Your task to perform on an android device: find photos in the google photos app Image 0: 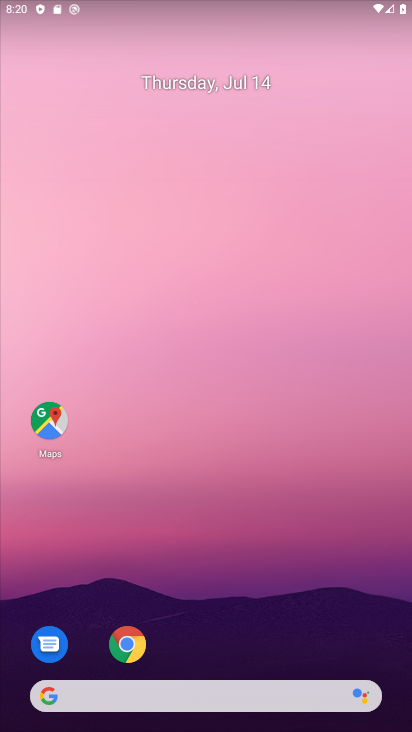
Step 0: drag from (277, 660) to (203, 193)
Your task to perform on an android device: find photos in the google photos app Image 1: 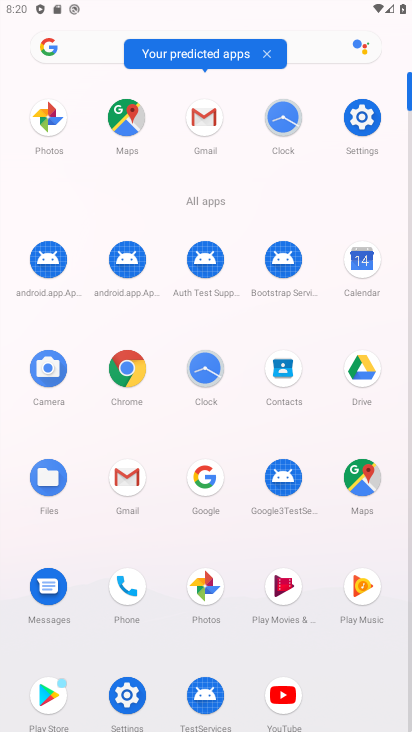
Step 1: click (51, 116)
Your task to perform on an android device: find photos in the google photos app Image 2: 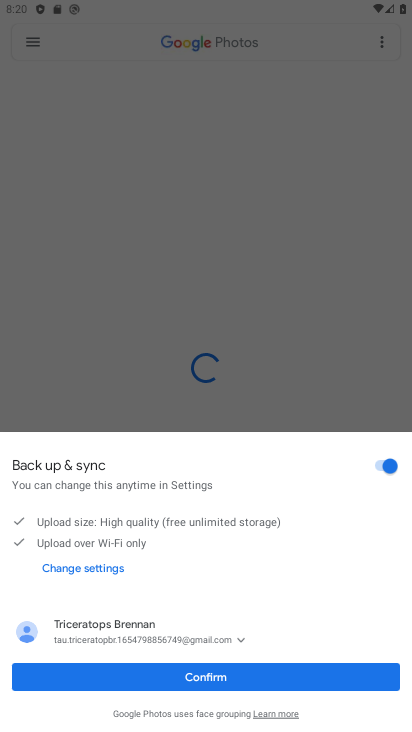
Step 2: click (249, 687)
Your task to perform on an android device: find photos in the google photos app Image 3: 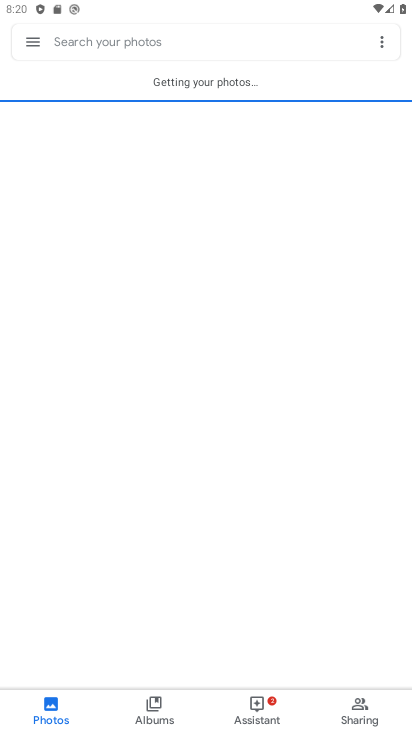
Step 3: task complete